Your task to perform on an android device: check google app version Image 0: 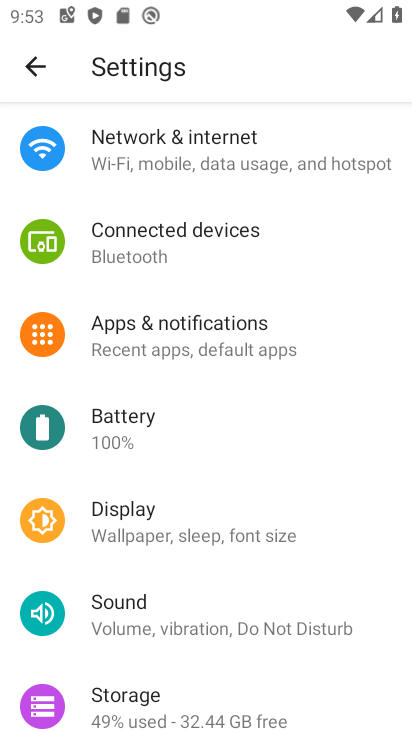
Step 0: press home button
Your task to perform on an android device: check google app version Image 1: 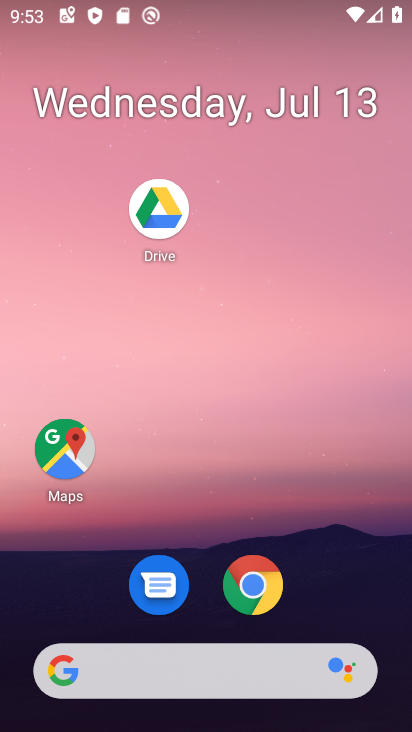
Step 1: drag from (230, 620) to (335, 173)
Your task to perform on an android device: check google app version Image 2: 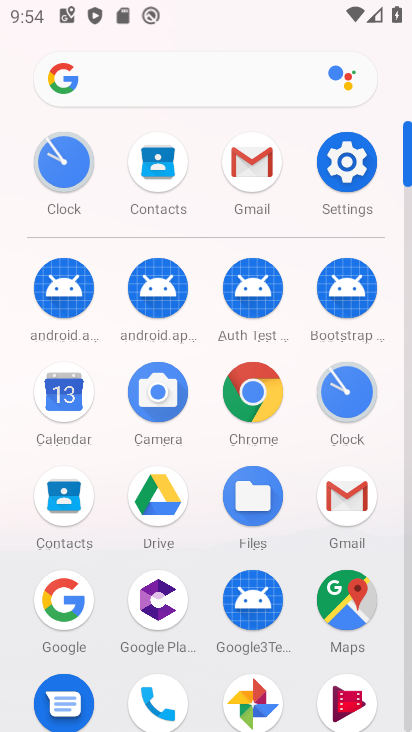
Step 2: click (63, 603)
Your task to perform on an android device: check google app version Image 3: 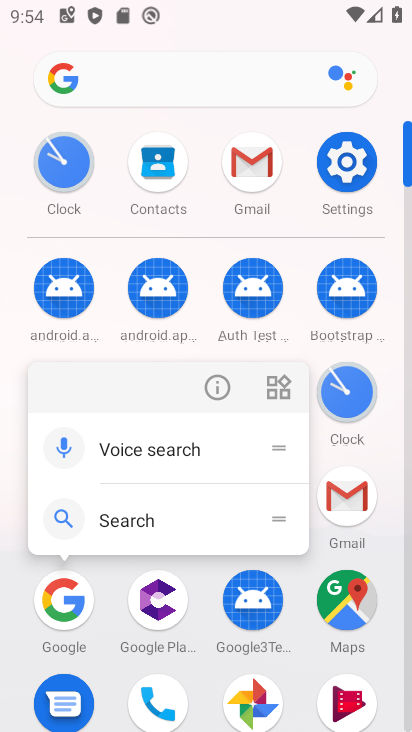
Step 3: click (220, 385)
Your task to perform on an android device: check google app version Image 4: 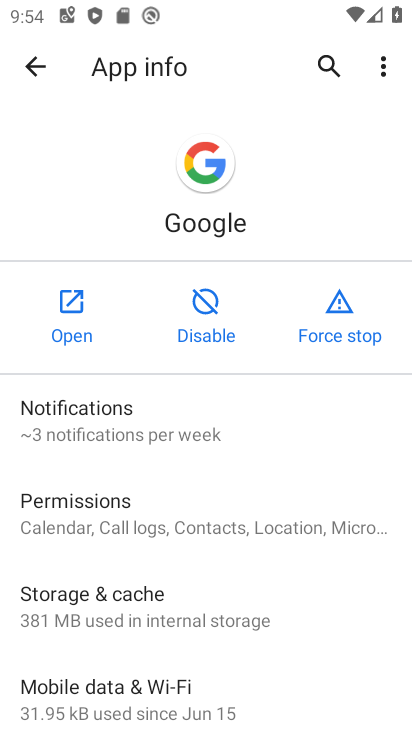
Step 4: drag from (155, 660) to (284, 128)
Your task to perform on an android device: check google app version Image 5: 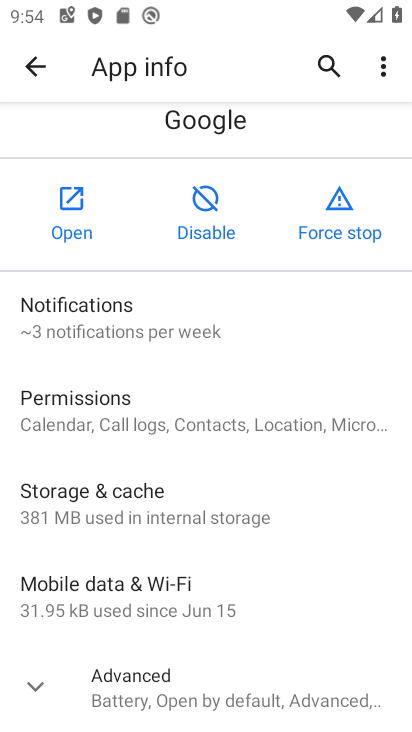
Step 5: drag from (208, 664) to (362, 140)
Your task to perform on an android device: check google app version Image 6: 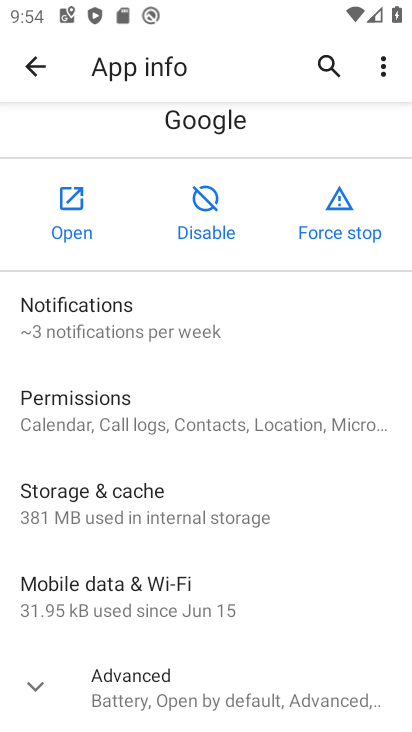
Step 6: click (138, 681)
Your task to perform on an android device: check google app version Image 7: 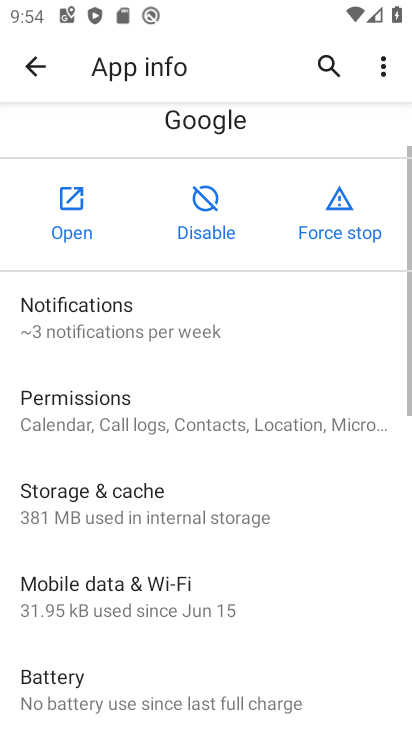
Step 7: task complete